Your task to perform on an android device: Go to Amazon Image 0: 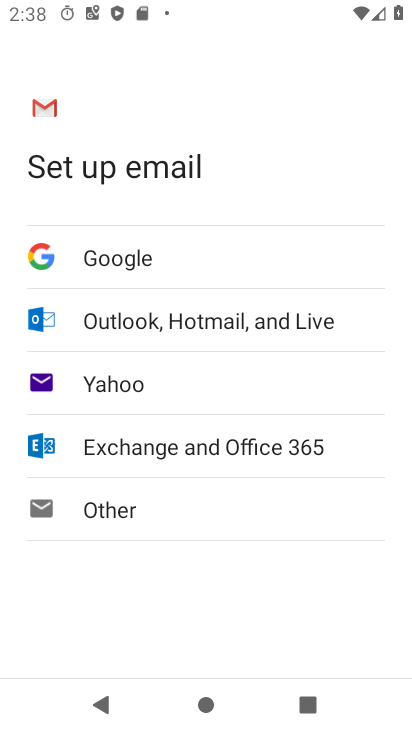
Step 0: press home button
Your task to perform on an android device: Go to Amazon Image 1: 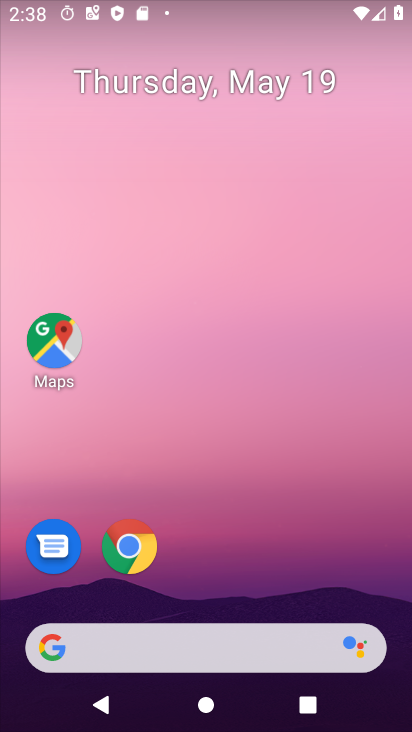
Step 1: click (125, 563)
Your task to perform on an android device: Go to Amazon Image 2: 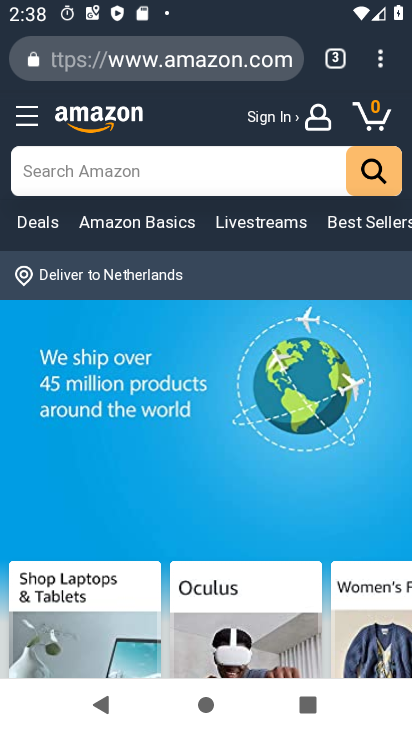
Step 2: task complete